Your task to perform on an android device: Add "macbook air" to the cart on target.com, then select checkout. Image 0: 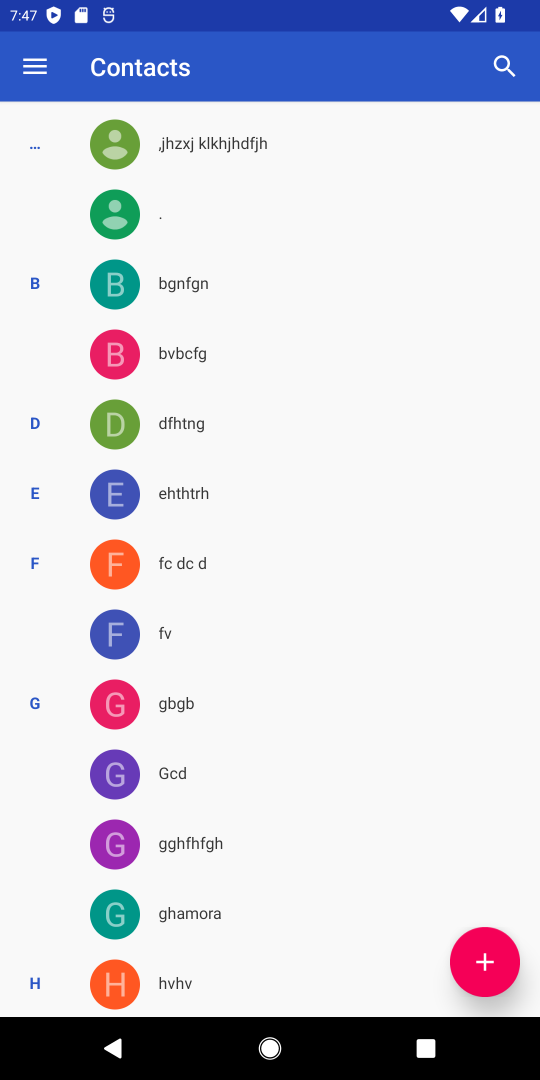
Step 0: press home button
Your task to perform on an android device: Add "macbook air" to the cart on target.com, then select checkout. Image 1: 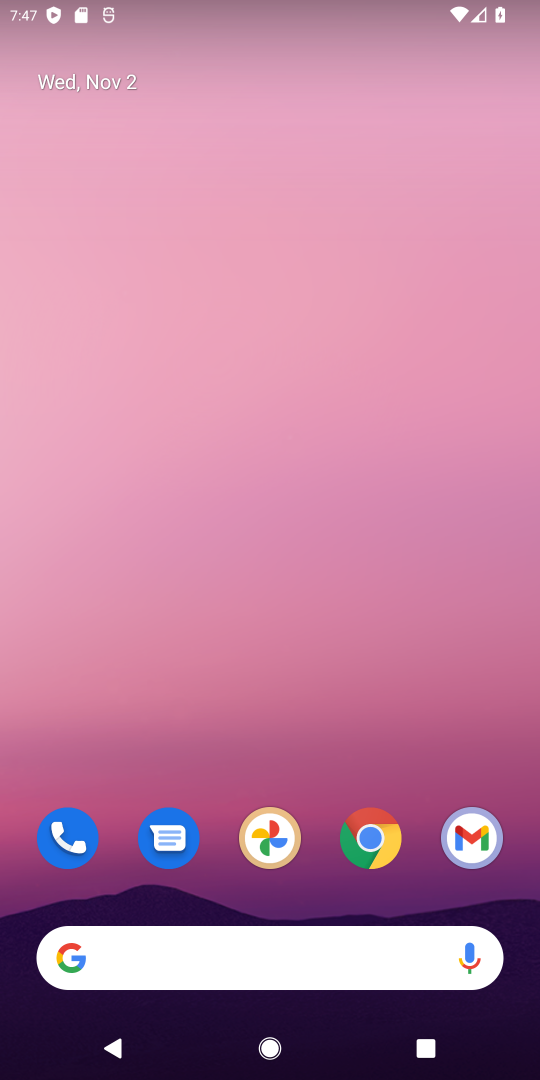
Step 1: click (387, 856)
Your task to perform on an android device: Add "macbook air" to the cart on target.com, then select checkout. Image 2: 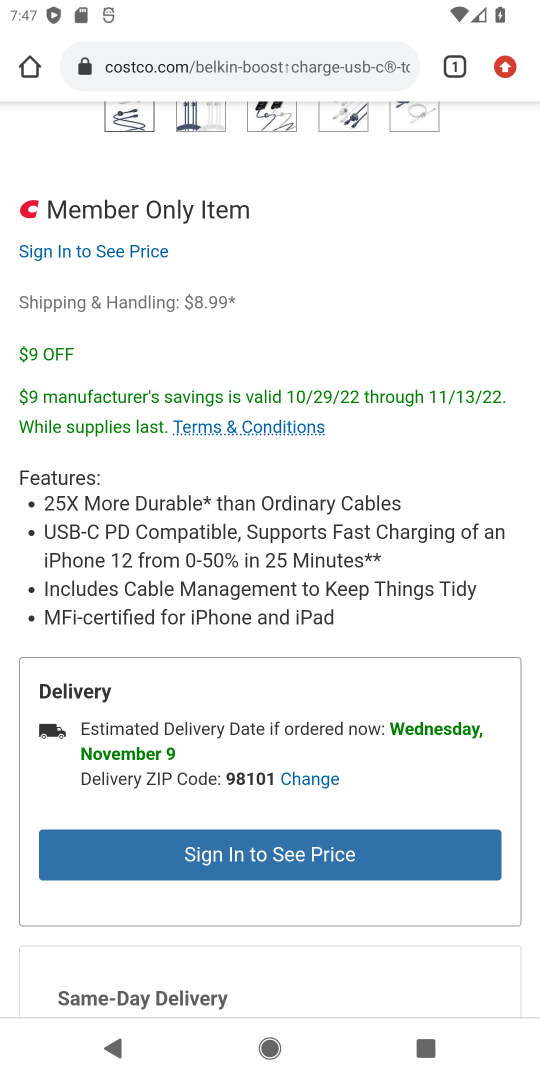
Step 2: click (141, 83)
Your task to perform on an android device: Add "macbook air" to the cart on target.com, then select checkout. Image 3: 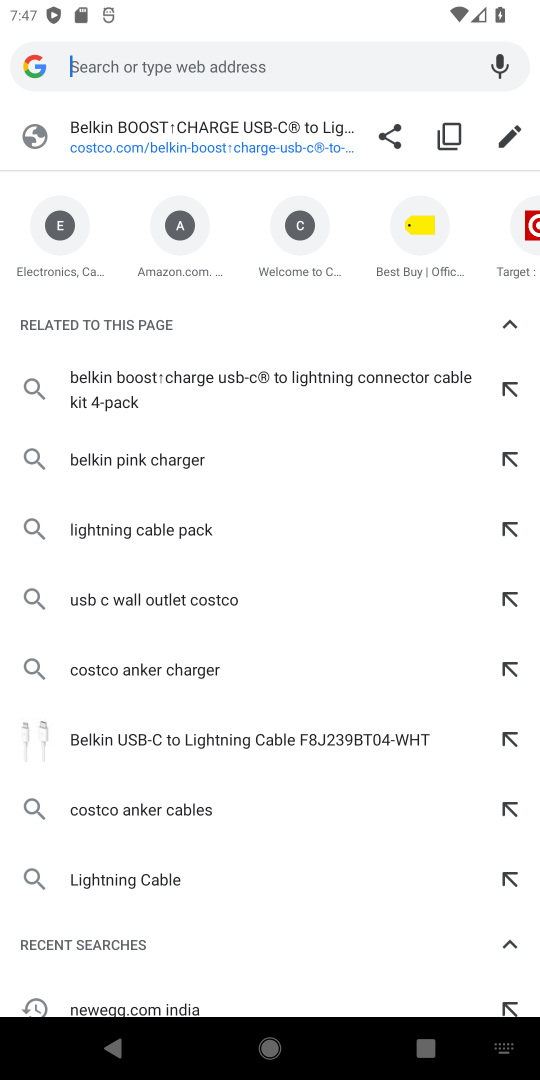
Step 3: type "target.com"
Your task to perform on an android device: Add "macbook air" to the cart on target.com, then select checkout. Image 4: 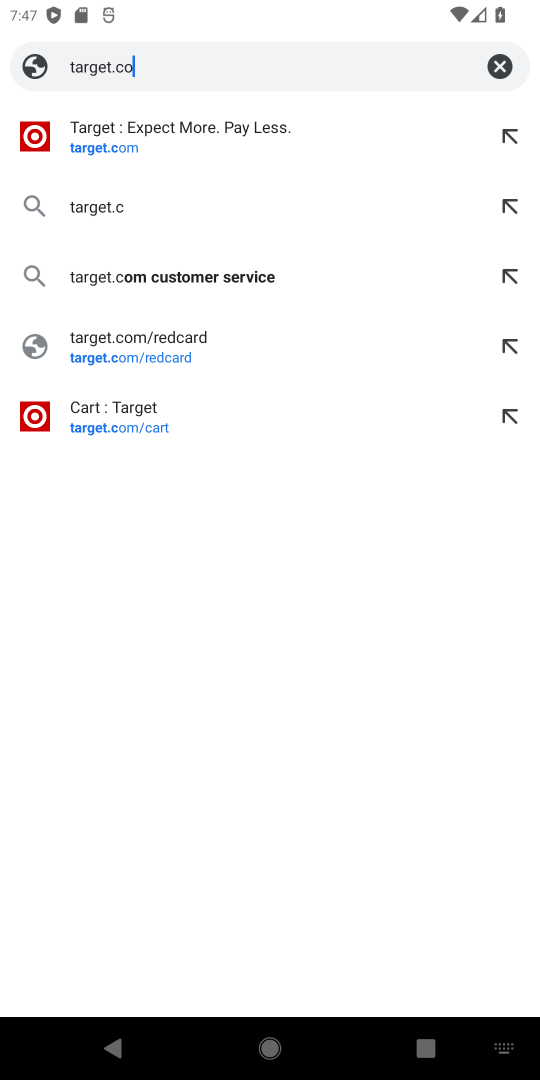
Step 4: type ""
Your task to perform on an android device: Add "macbook air" to the cart on target.com, then select checkout. Image 5: 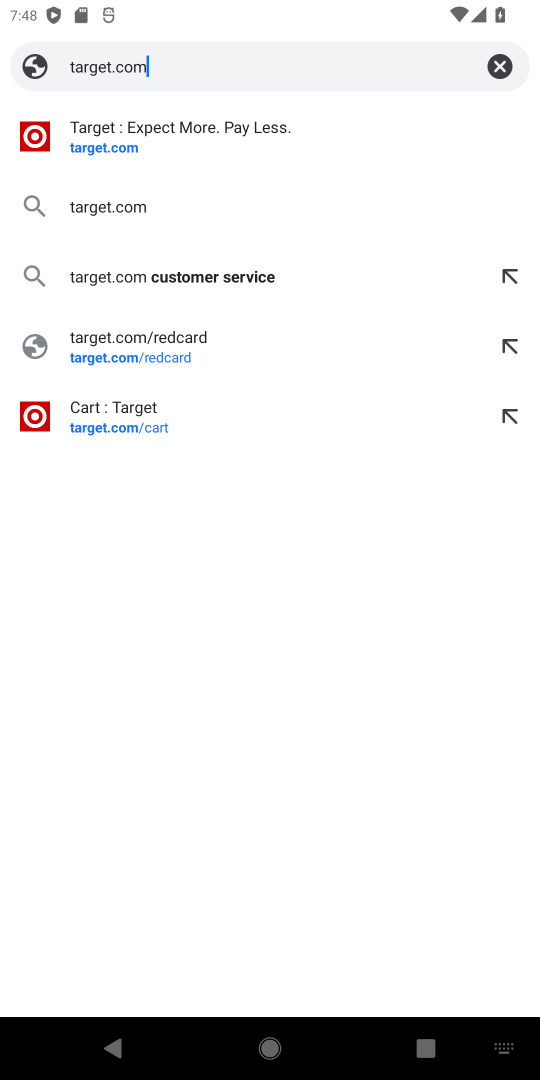
Step 5: drag from (374, 718) to (397, 653)
Your task to perform on an android device: Add "macbook air" to the cart on target.com, then select checkout. Image 6: 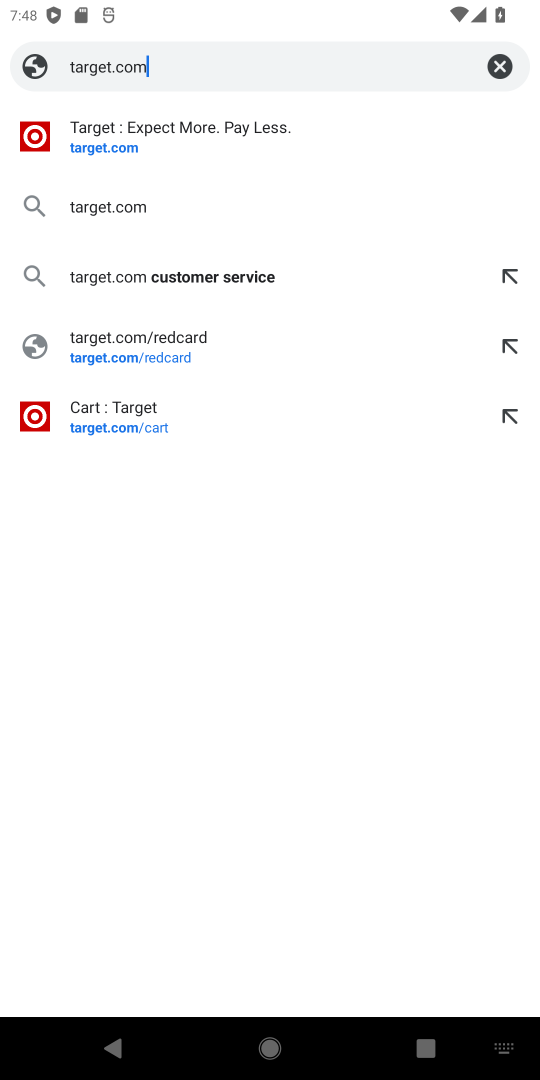
Step 6: press enter
Your task to perform on an android device: Add "macbook air" to the cart on target.com, then select checkout. Image 7: 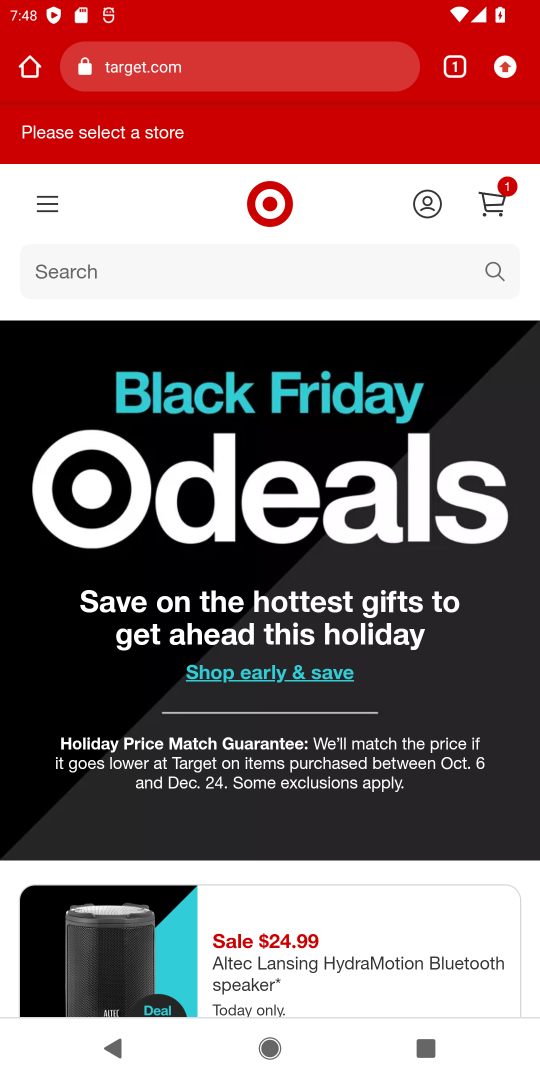
Step 7: click (288, 265)
Your task to perform on an android device: Add "macbook air" to the cart on target.com, then select checkout. Image 8: 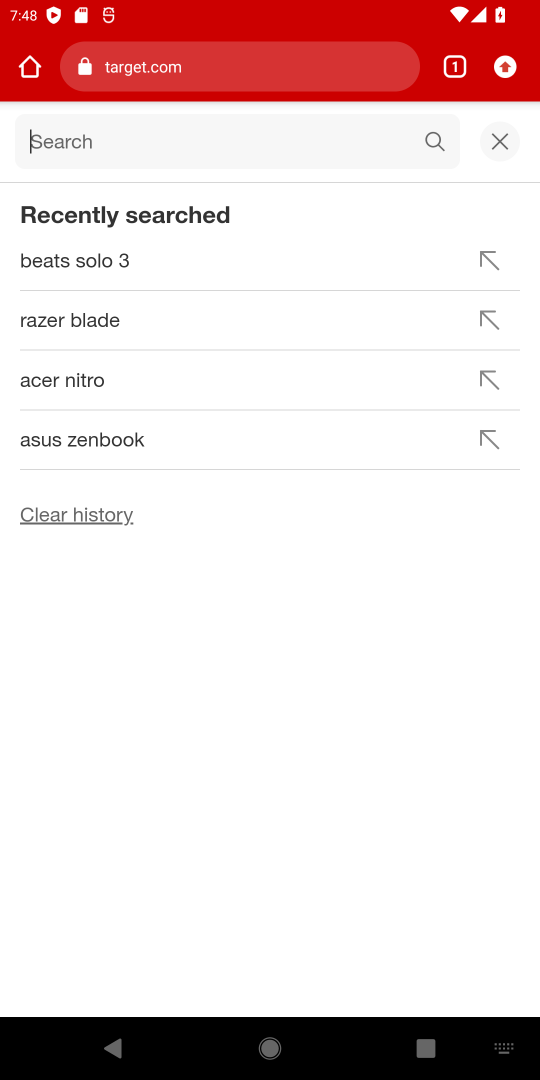
Step 8: type "macbook air"
Your task to perform on an android device: Add "macbook air" to the cart on target.com, then select checkout. Image 9: 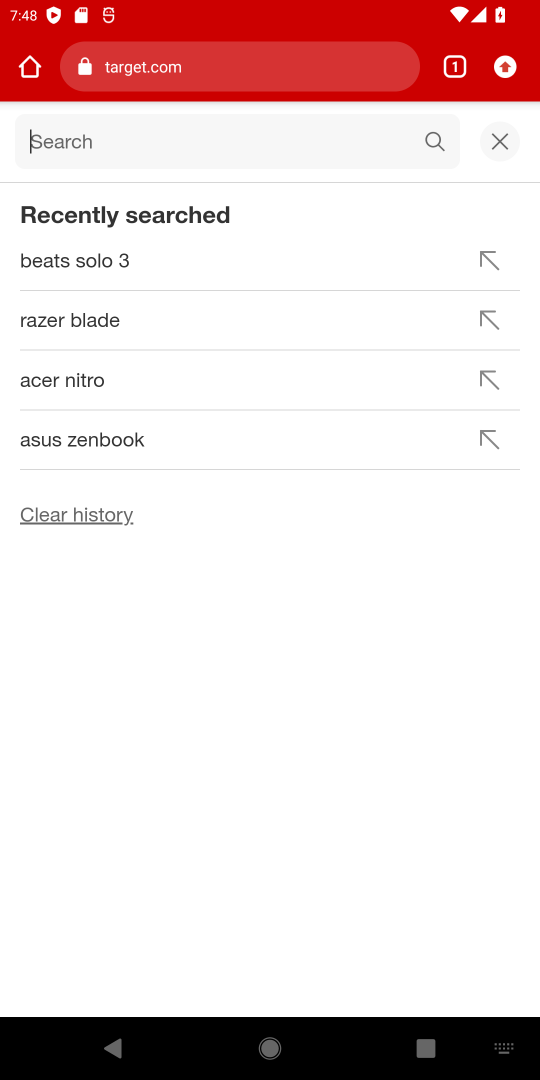
Step 9: type ""
Your task to perform on an android device: Add "macbook air" to the cart on target.com, then select checkout. Image 10: 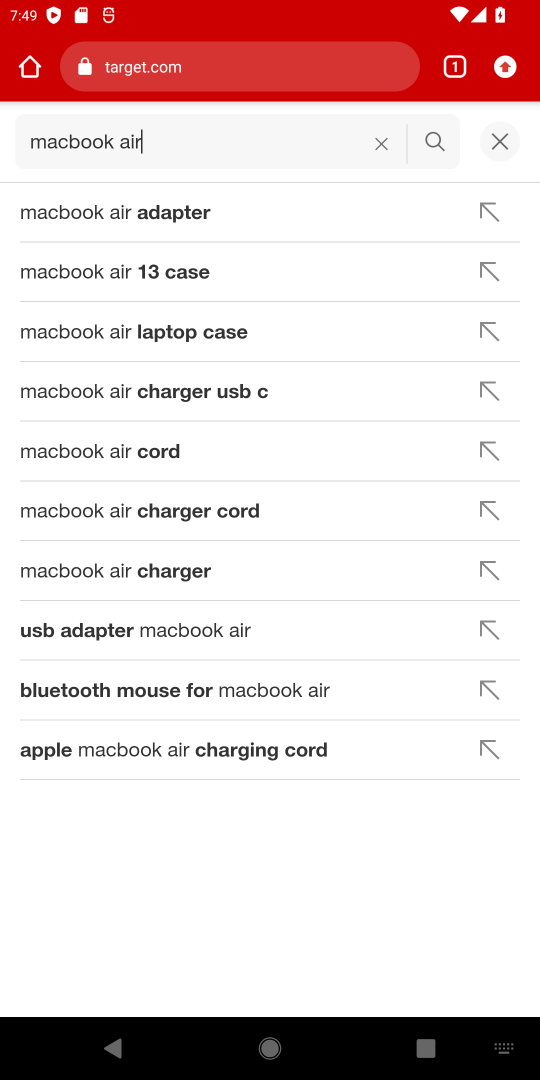
Step 10: press enter
Your task to perform on an android device: Add "macbook air" to the cart on target.com, then select checkout. Image 11: 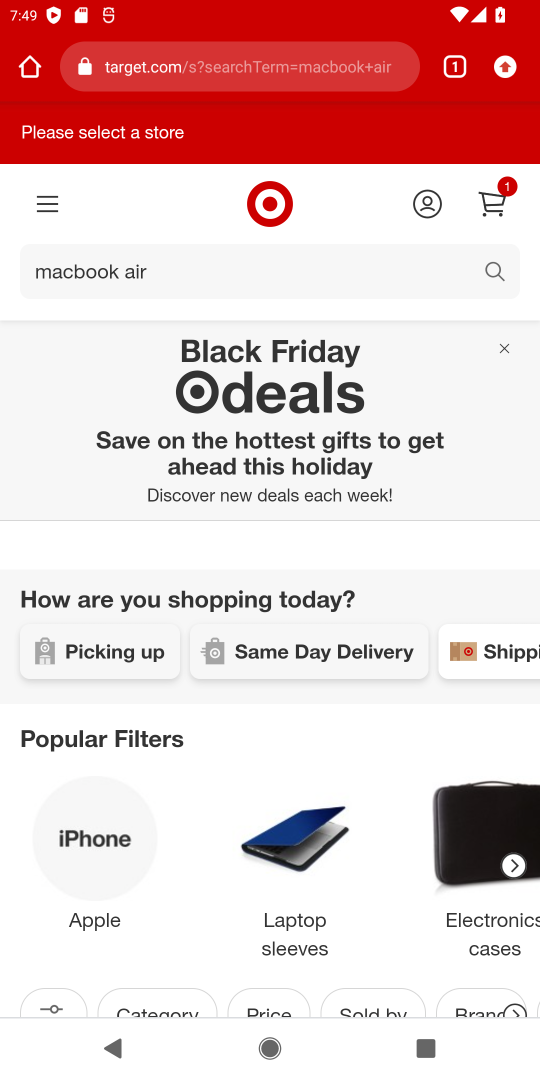
Step 11: task complete